Your task to perform on an android device: Go to calendar. Show me events next week Image 0: 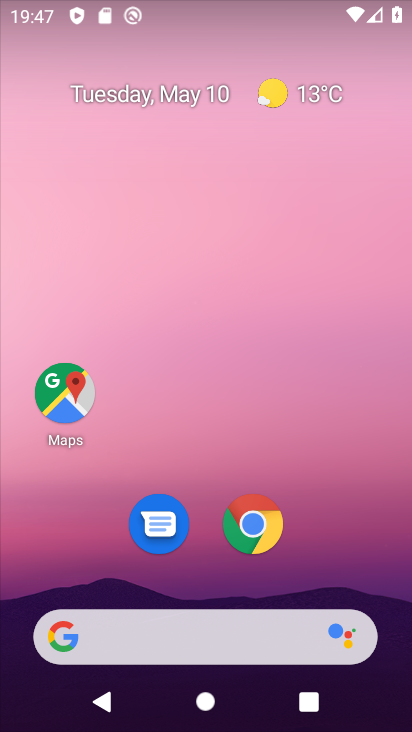
Step 0: drag from (321, 544) to (362, 28)
Your task to perform on an android device: Go to calendar. Show me events next week Image 1: 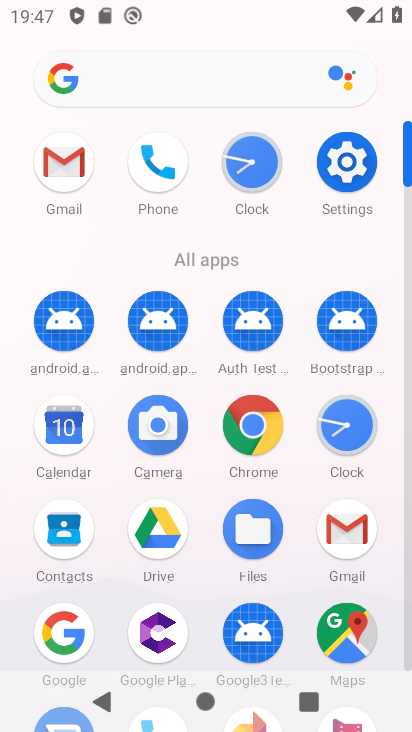
Step 1: click (58, 420)
Your task to perform on an android device: Go to calendar. Show me events next week Image 2: 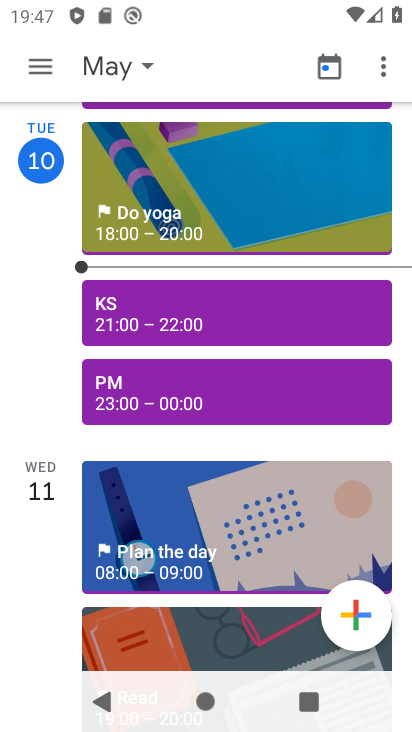
Step 2: click (43, 65)
Your task to perform on an android device: Go to calendar. Show me events next week Image 3: 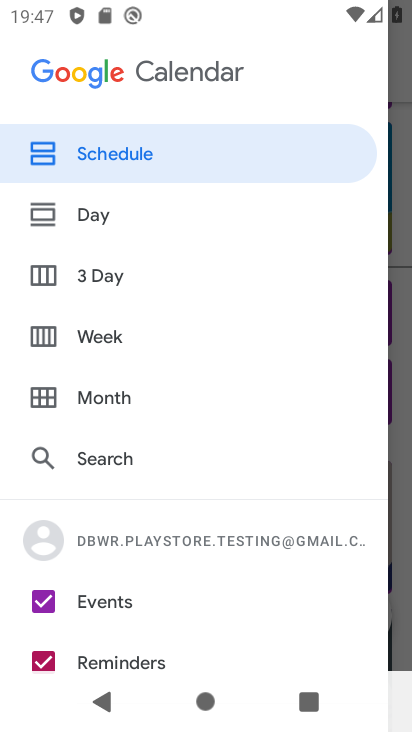
Step 3: click (45, 336)
Your task to perform on an android device: Go to calendar. Show me events next week Image 4: 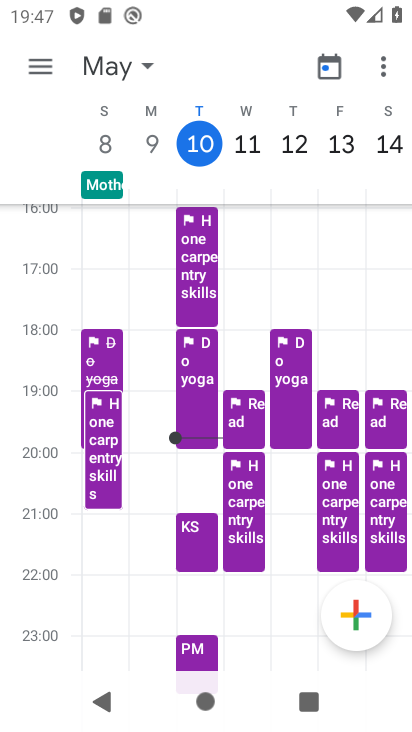
Step 4: task complete